Your task to perform on an android device: Open Google Chrome and open the bookmarks view Image 0: 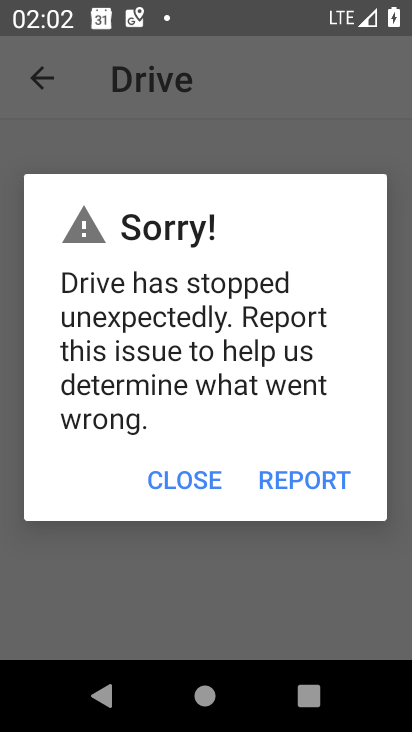
Step 0: press home button
Your task to perform on an android device: Open Google Chrome and open the bookmarks view Image 1: 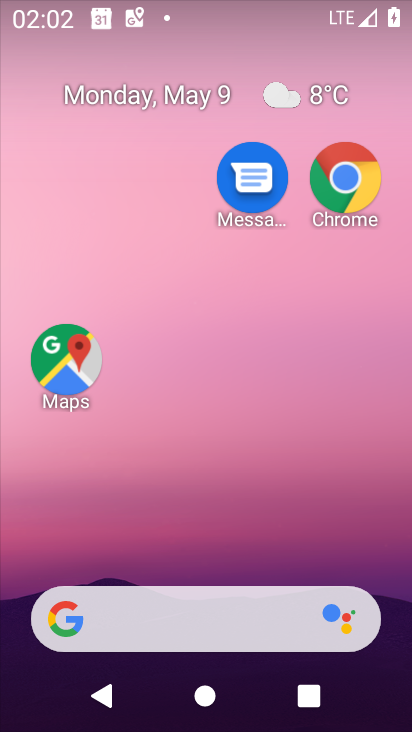
Step 1: click (357, 158)
Your task to perform on an android device: Open Google Chrome and open the bookmarks view Image 2: 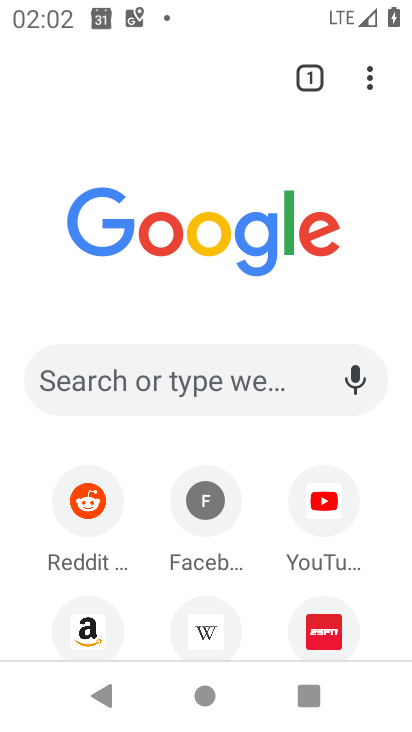
Step 2: click (377, 63)
Your task to perform on an android device: Open Google Chrome and open the bookmarks view Image 3: 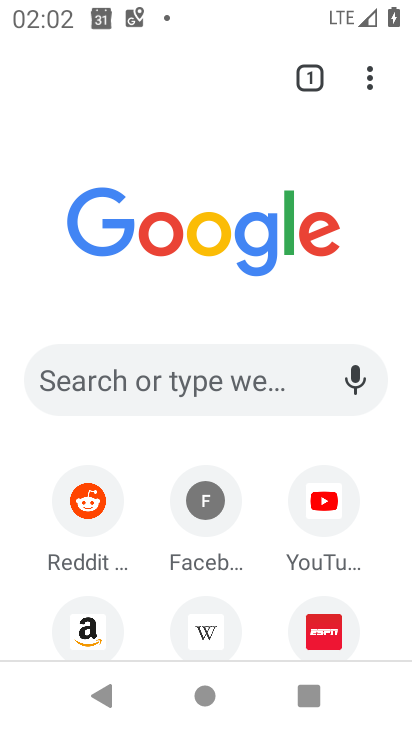
Step 3: click (370, 73)
Your task to perform on an android device: Open Google Chrome and open the bookmarks view Image 4: 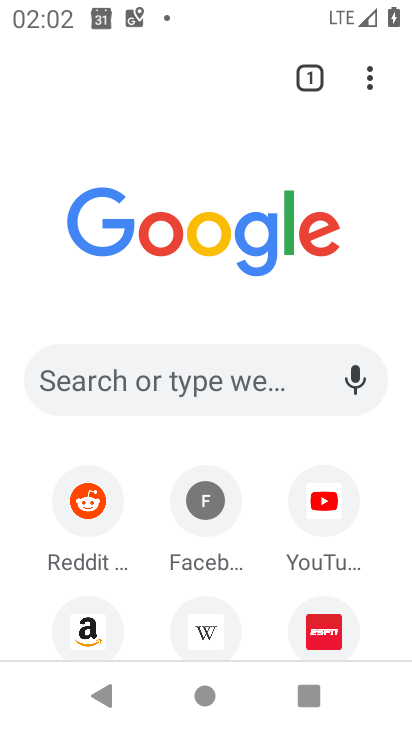
Step 4: click (372, 73)
Your task to perform on an android device: Open Google Chrome and open the bookmarks view Image 5: 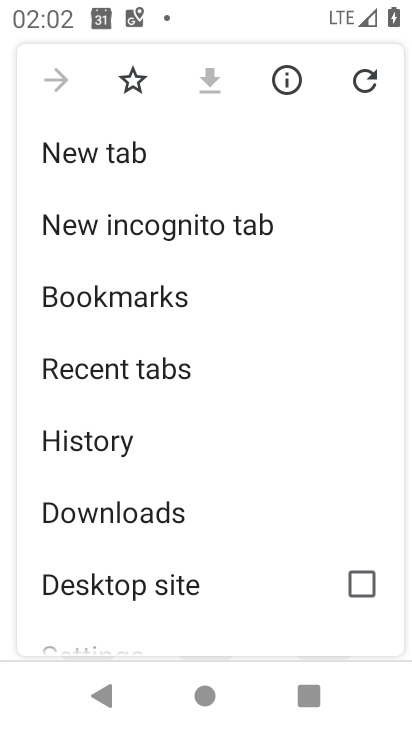
Step 5: click (183, 288)
Your task to perform on an android device: Open Google Chrome and open the bookmarks view Image 6: 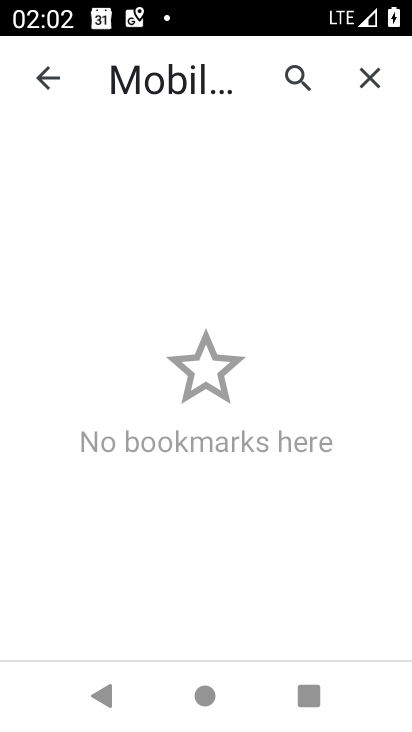
Step 6: task complete